Your task to perform on an android device: Go to Amazon Image 0: 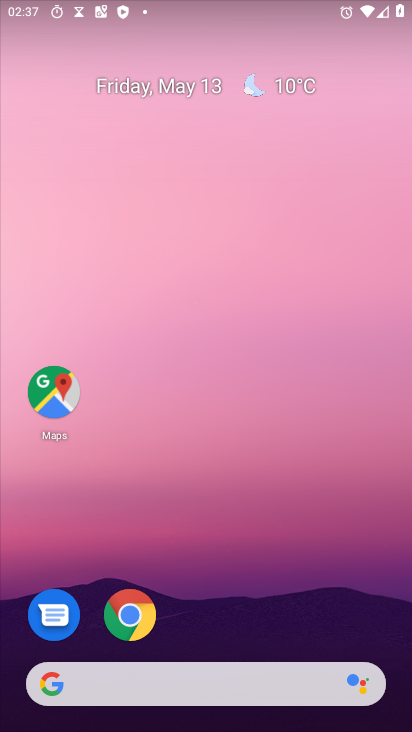
Step 0: click (137, 622)
Your task to perform on an android device: Go to Amazon Image 1: 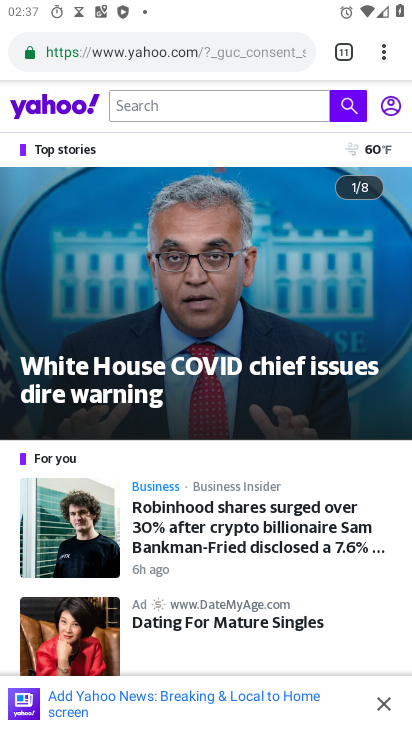
Step 1: click (345, 47)
Your task to perform on an android device: Go to Amazon Image 2: 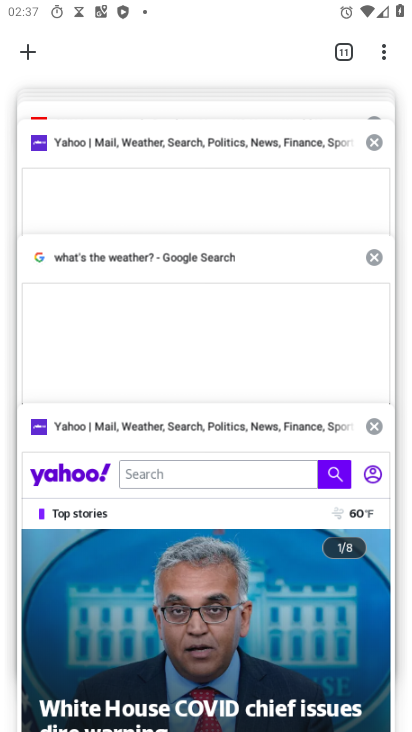
Step 2: drag from (178, 186) to (149, 577)
Your task to perform on an android device: Go to Amazon Image 3: 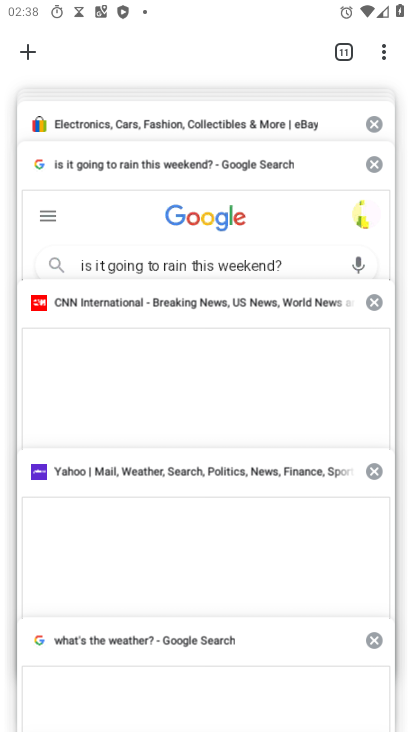
Step 3: drag from (102, 169) to (109, 600)
Your task to perform on an android device: Go to Amazon Image 4: 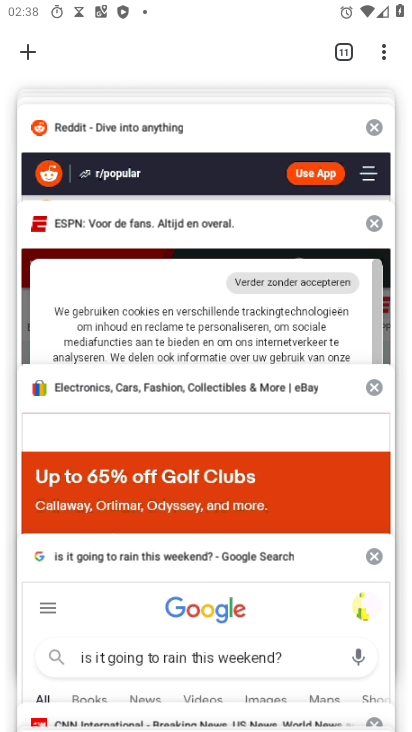
Step 4: drag from (120, 151) to (111, 548)
Your task to perform on an android device: Go to Amazon Image 5: 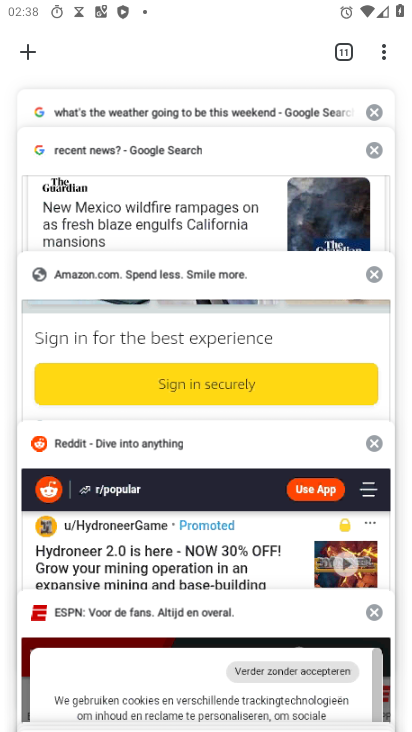
Step 5: click (116, 337)
Your task to perform on an android device: Go to Amazon Image 6: 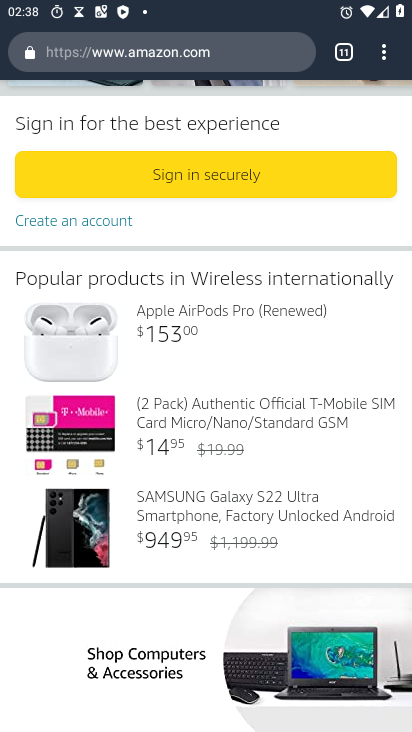
Step 6: task complete